Your task to perform on an android device: turn off data saver in the chrome app Image 0: 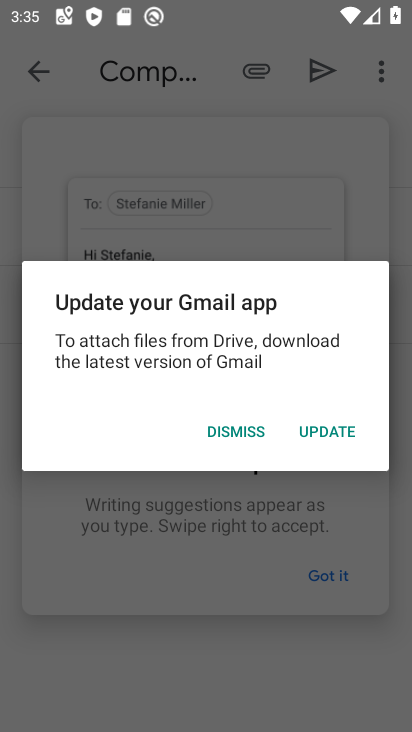
Step 0: click (328, 583)
Your task to perform on an android device: turn off data saver in the chrome app Image 1: 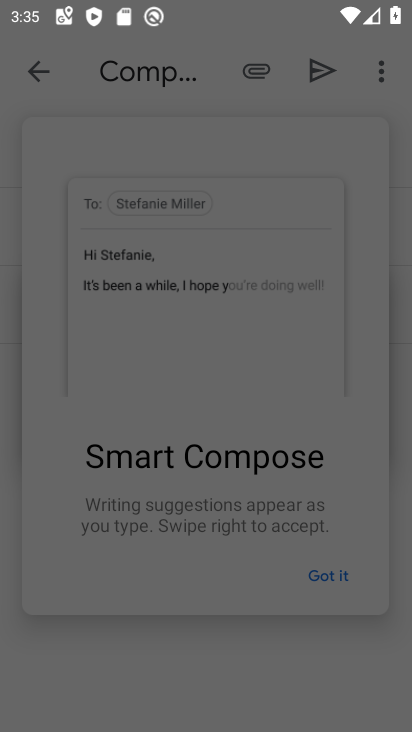
Step 1: click (346, 576)
Your task to perform on an android device: turn off data saver in the chrome app Image 2: 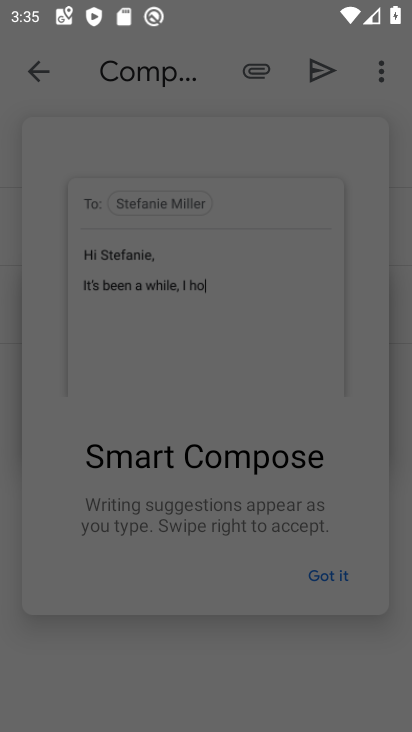
Step 2: click (330, 576)
Your task to perform on an android device: turn off data saver in the chrome app Image 3: 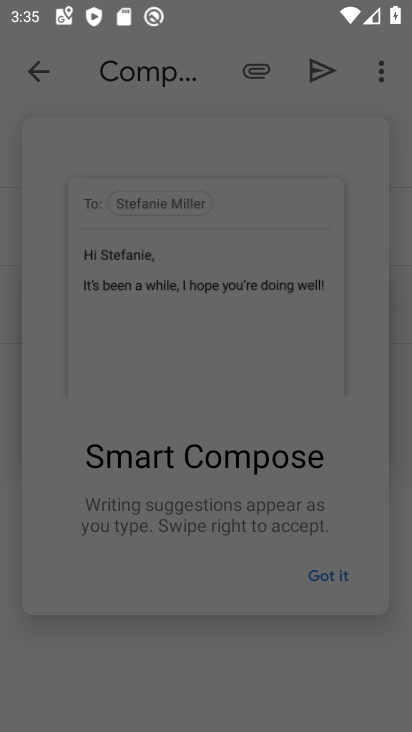
Step 3: click (336, 584)
Your task to perform on an android device: turn off data saver in the chrome app Image 4: 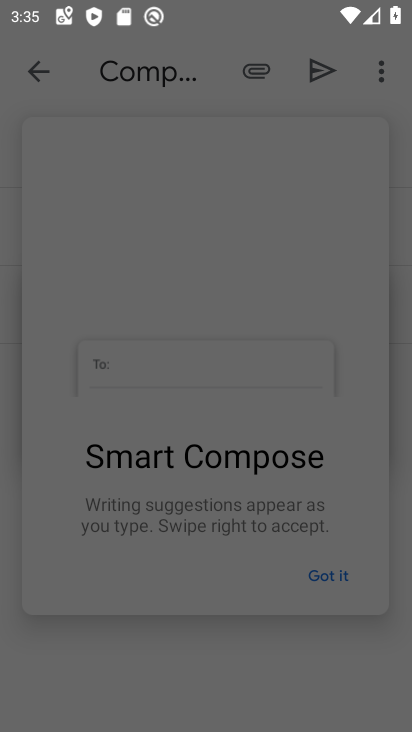
Step 4: click (336, 584)
Your task to perform on an android device: turn off data saver in the chrome app Image 5: 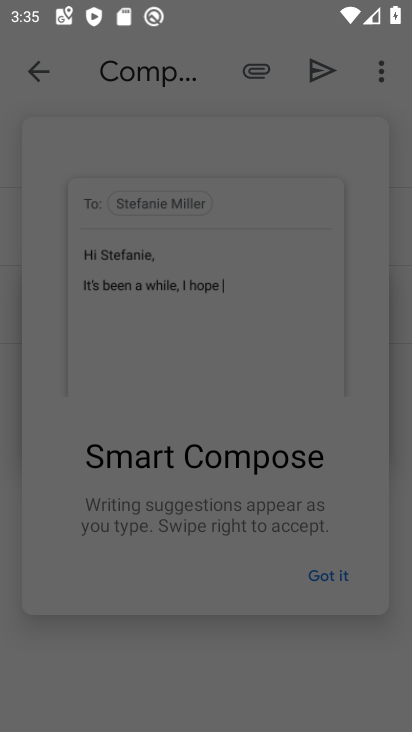
Step 5: click (330, 575)
Your task to perform on an android device: turn off data saver in the chrome app Image 6: 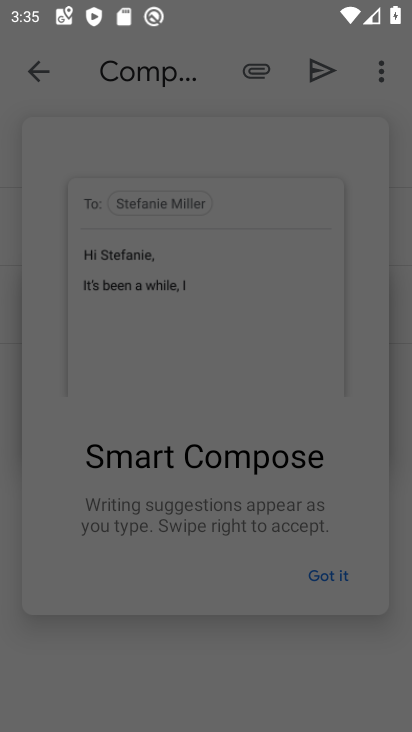
Step 6: press home button
Your task to perform on an android device: turn off data saver in the chrome app Image 7: 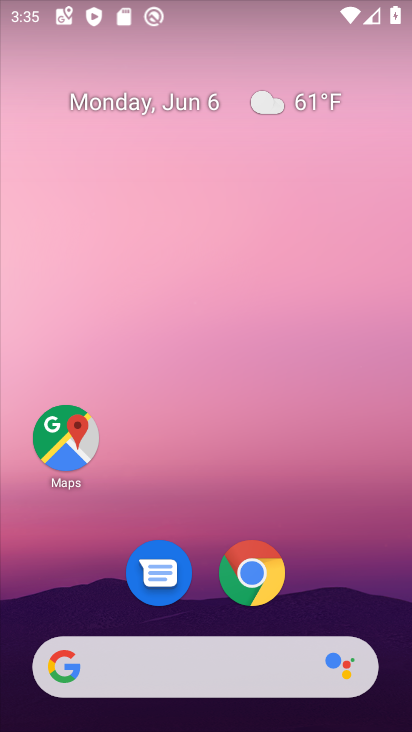
Step 7: click (247, 585)
Your task to perform on an android device: turn off data saver in the chrome app Image 8: 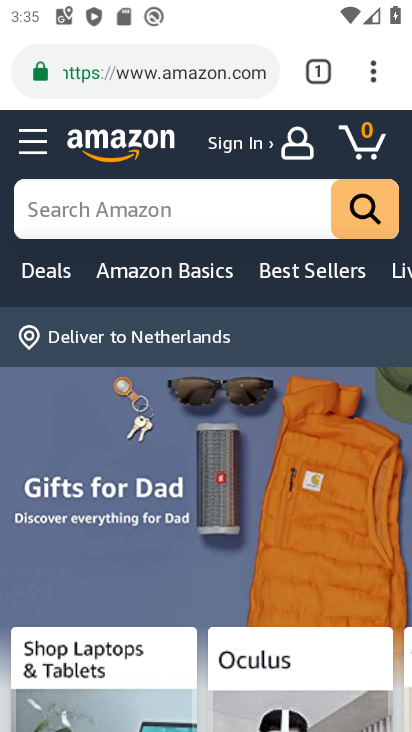
Step 8: click (372, 72)
Your task to perform on an android device: turn off data saver in the chrome app Image 9: 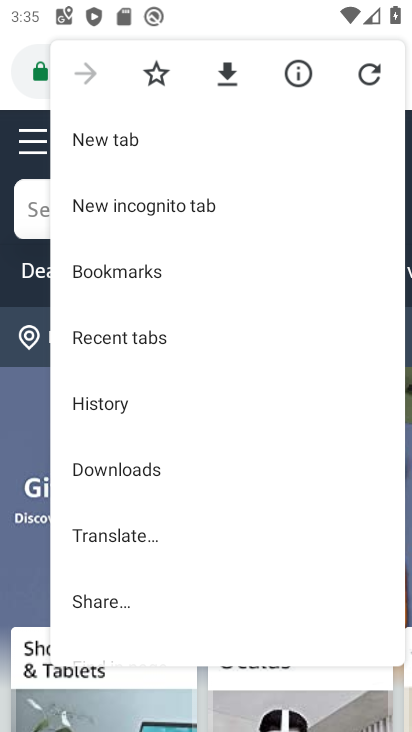
Step 9: drag from (129, 606) to (105, 168)
Your task to perform on an android device: turn off data saver in the chrome app Image 10: 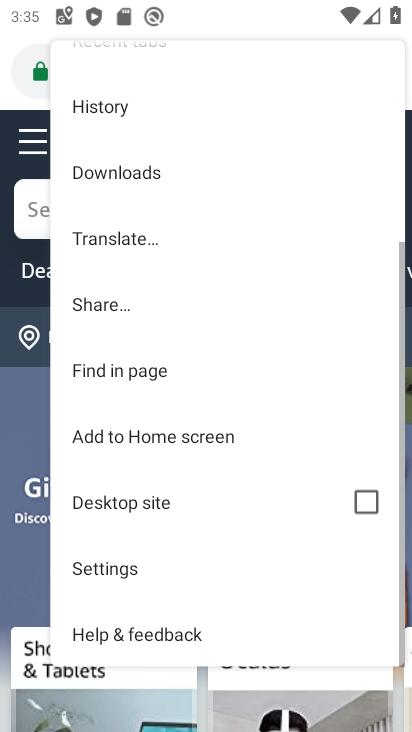
Step 10: click (136, 581)
Your task to perform on an android device: turn off data saver in the chrome app Image 11: 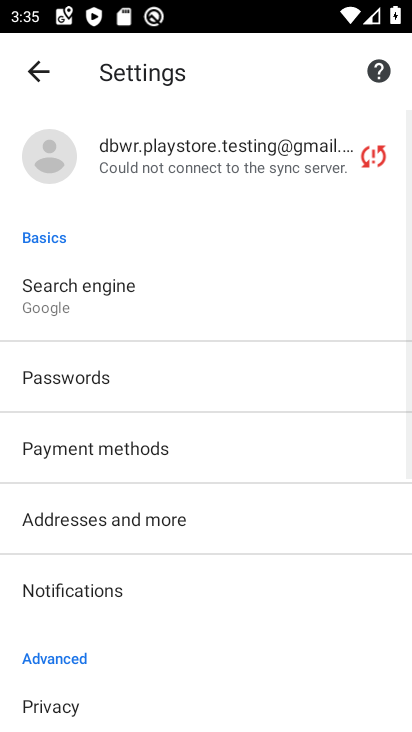
Step 11: drag from (121, 684) to (99, 201)
Your task to perform on an android device: turn off data saver in the chrome app Image 12: 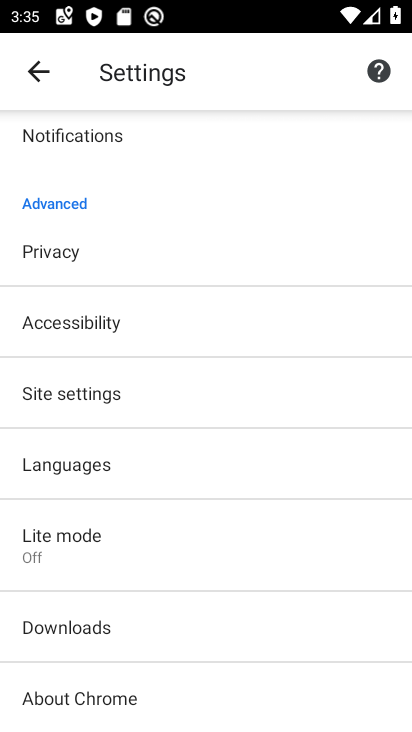
Step 12: click (64, 550)
Your task to perform on an android device: turn off data saver in the chrome app Image 13: 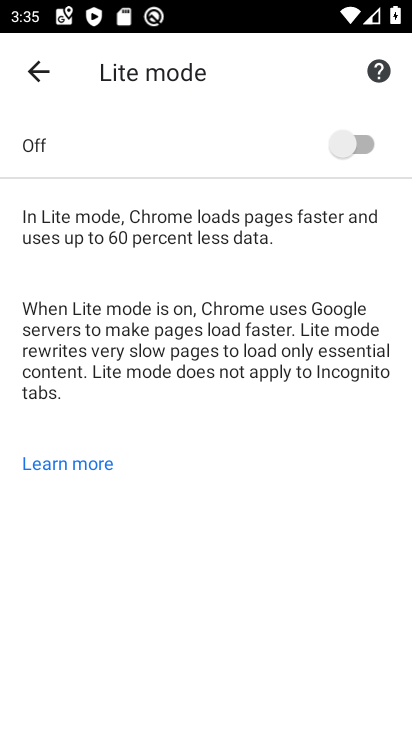
Step 13: task complete